Your task to perform on an android device: Go to Yahoo.com Image 0: 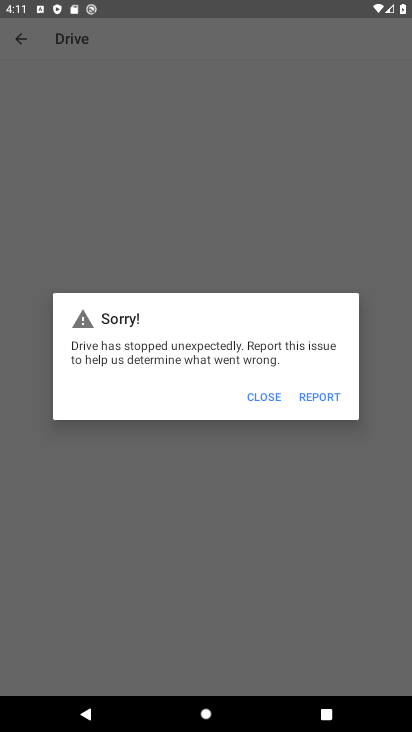
Step 0: press home button
Your task to perform on an android device: Go to Yahoo.com Image 1: 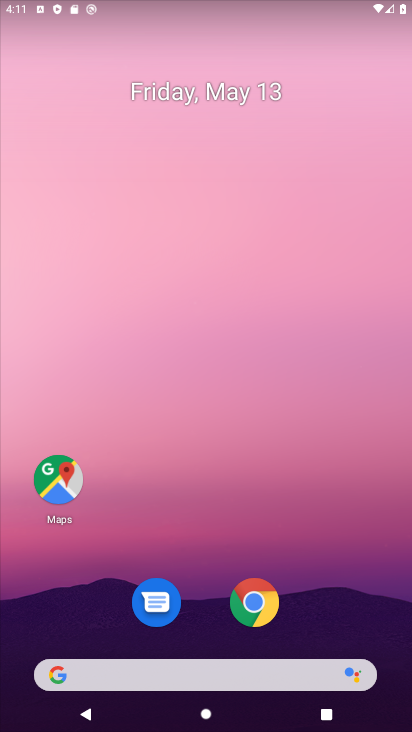
Step 1: click (250, 605)
Your task to perform on an android device: Go to Yahoo.com Image 2: 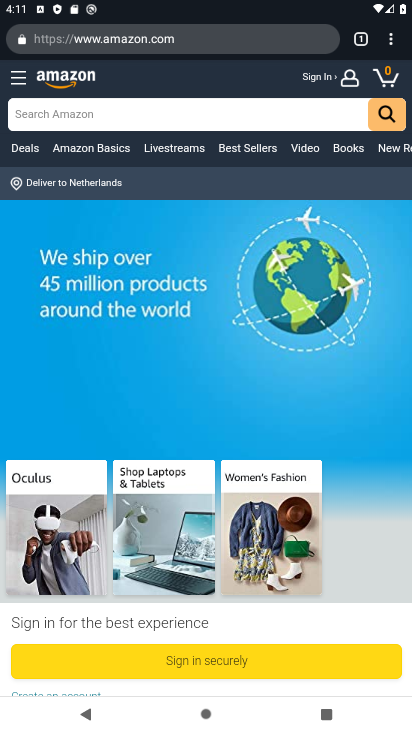
Step 2: click (357, 43)
Your task to perform on an android device: Go to Yahoo.com Image 3: 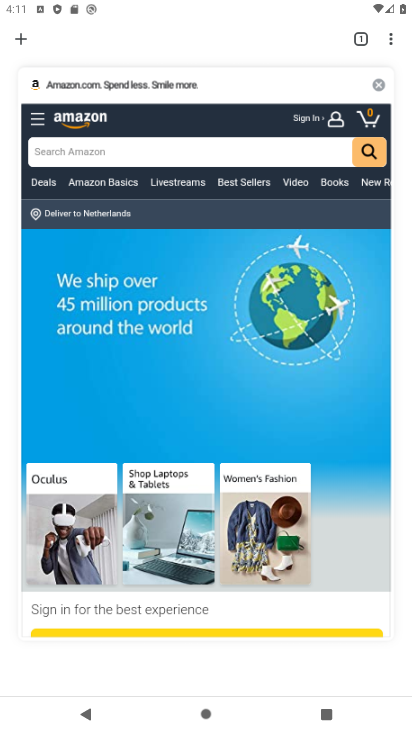
Step 3: click (21, 36)
Your task to perform on an android device: Go to Yahoo.com Image 4: 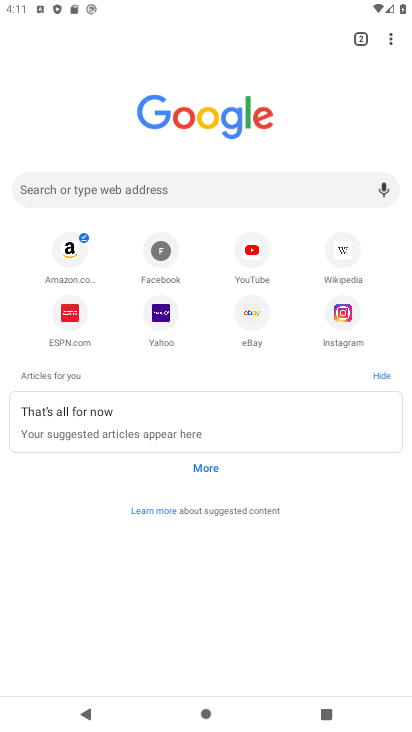
Step 4: click (163, 316)
Your task to perform on an android device: Go to Yahoo.com Image 5: 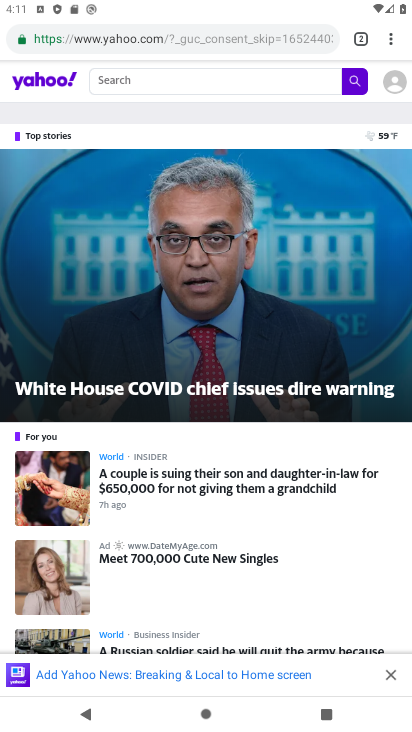
Step 5: task complete